Your task to perform on an android device: check the backup settings in the google photos Image 0: 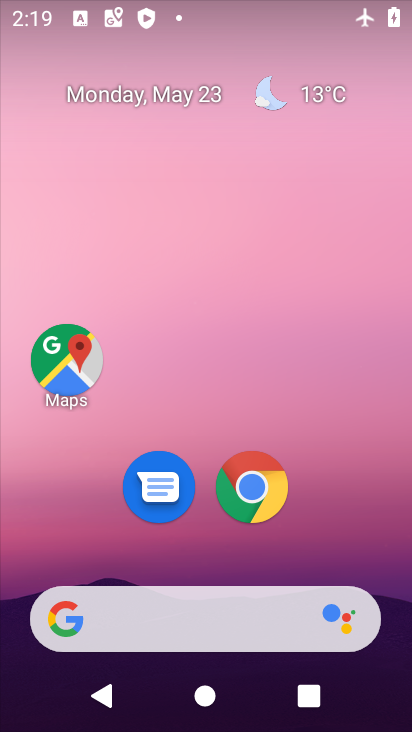
Step 0: drag from (399, 627) to (358, 84)
Your task to perform on an android device: check the backup settings in the google photos Image 1: 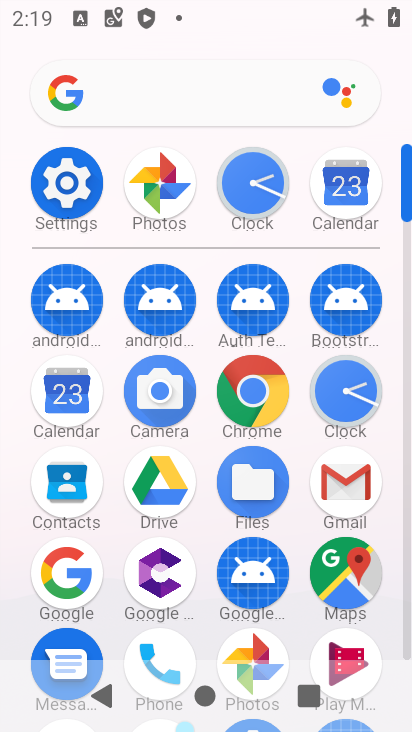
Step 1: click (408, 636)
Your task to perform on an android device: check the backup settings in the google photos Image 2: 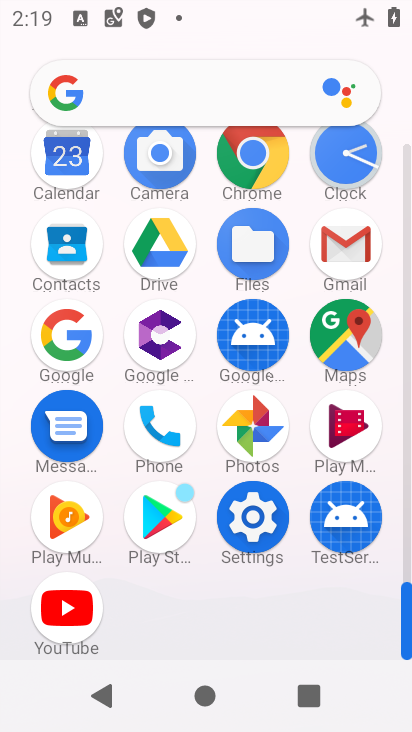
Step 2: click (252, 422)
Your task to perform on an android device: check the backup settings in the google photos Image 3: 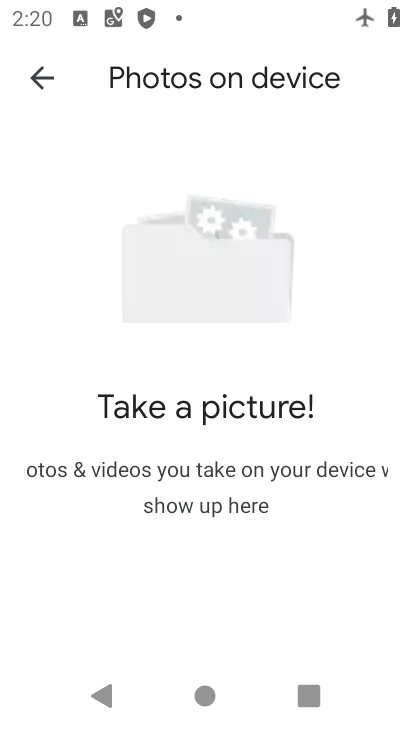
Step 3: press back button
Your task to perform on an android device: check the backup settings in the google photos Image 4: 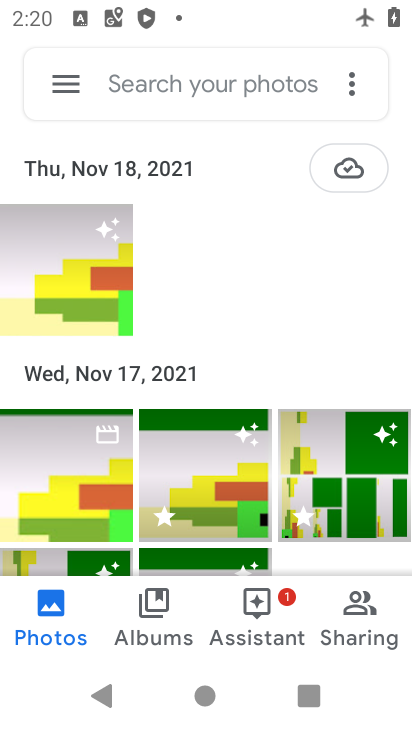
Step 4: click (69, 87)
Your task to perform on an android device: check the backup settings in the google photos Image 5: 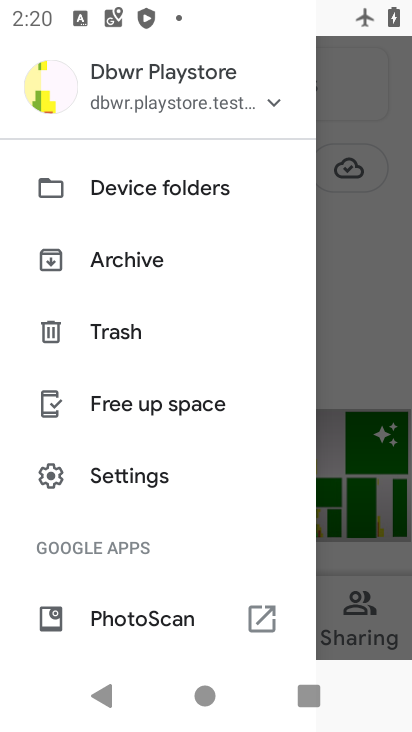
Step 5: click (115, 471)
Your task to perform on an android device: check the backup settings in the google photos Image 6: 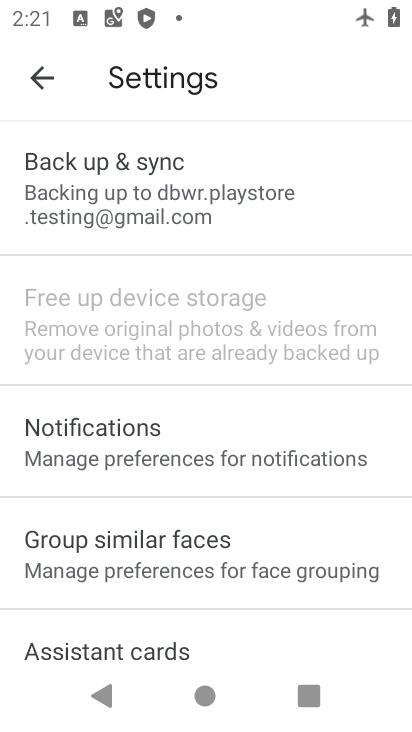
Step 6: click (96, 174)
Your task to perform on an android device: check the backup settings in the google photos Image 7: 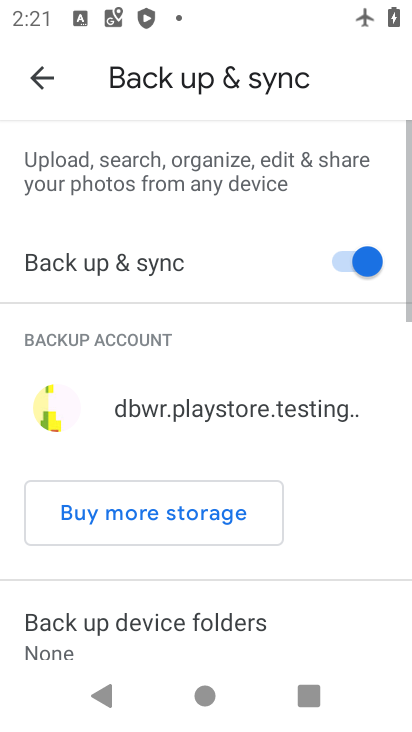
Step 7: task complete